Your task to perform on an android device: delete a single message in the gmail app Image 0: 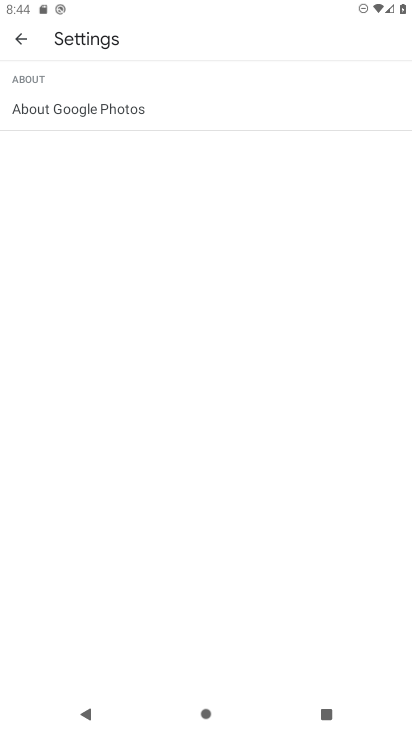
Step 0: press home button
Your task to perform on an android device: delete a single message in the gmail app Image 1: 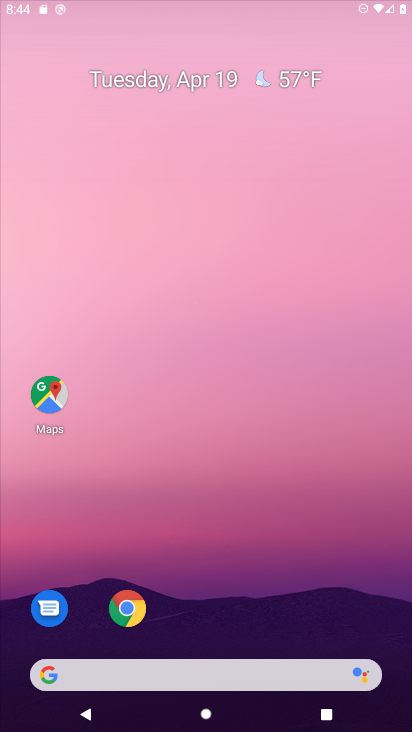
Step 1: drag from (273, 549) to (253, 156)
Your task to perform on an android device: delete a single message in the gmail app Image 2: 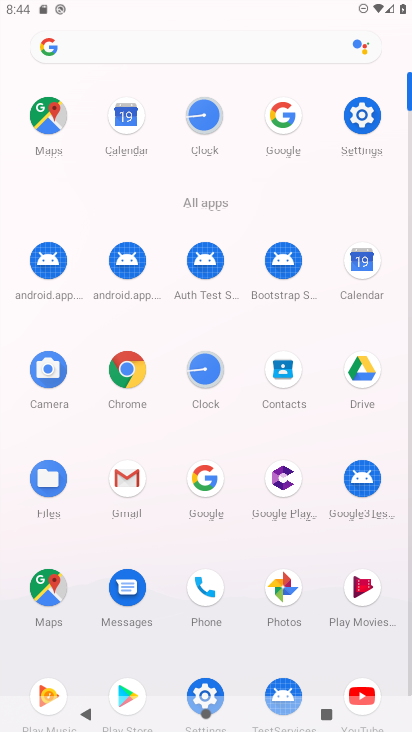
Step 2: click (122, 476)
Your task to perform on an android device: delete a single message in the gmail app Image 3: 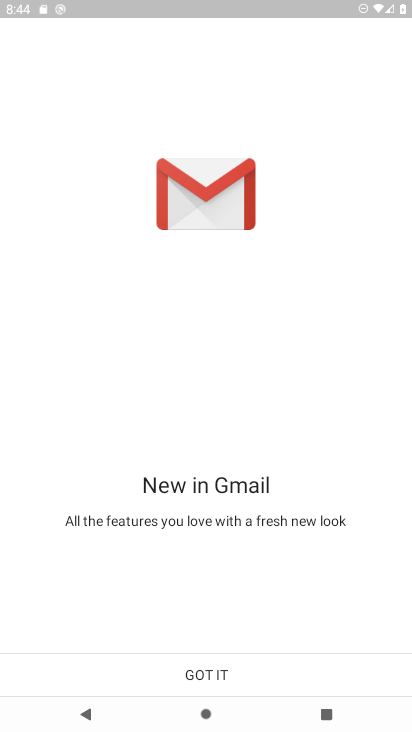
Step 3: click (191, 668)
Your task to perform on an android device: delete a single message in the gmail app Image 4: 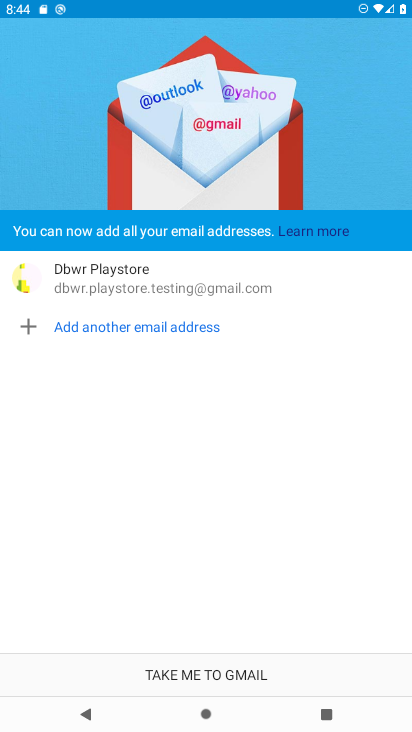
Step 4: click (199, 669)
Your task to perform on an android device: delete a single message in the gmail app Image 5: 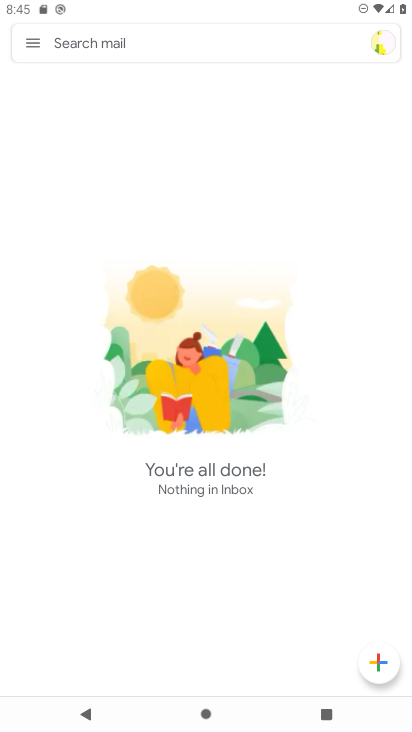
Step 5: click (30, 39)
Your task to perform on an android device: delete a single message in the gmail app Image 6: 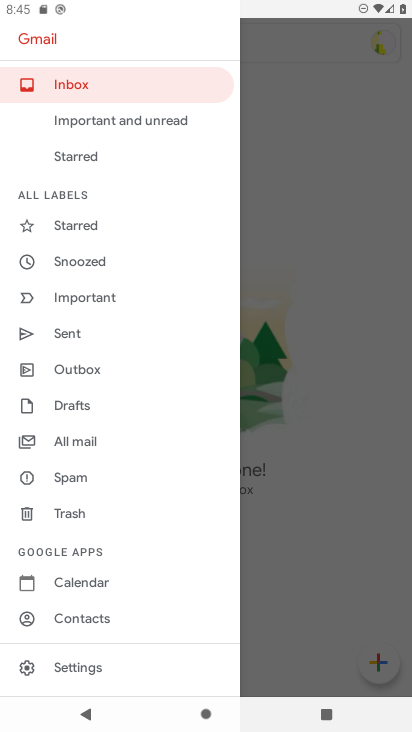
Step 6: click (86, 448)
Your task to perform on an android device: delete a single message in the gmail app Image 7: 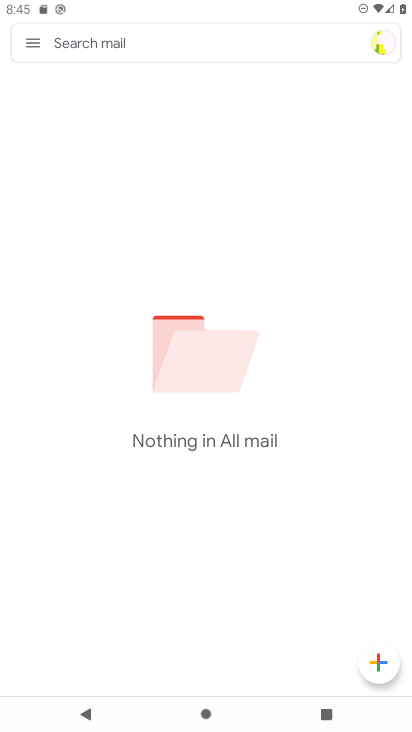
Step 7: task complete